Your task to perform on an android device: turn on bluetooth scan Image 0: 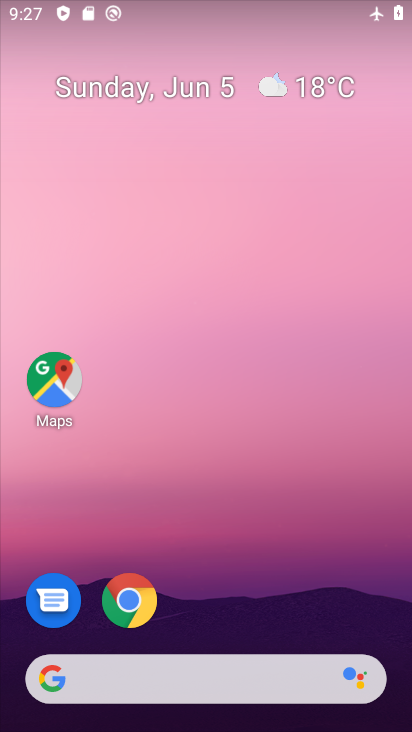
Step 0: drag from (301, 515) to (262, 71)
Your task to perform on an android device: turn on bluetooth scan Image 1: 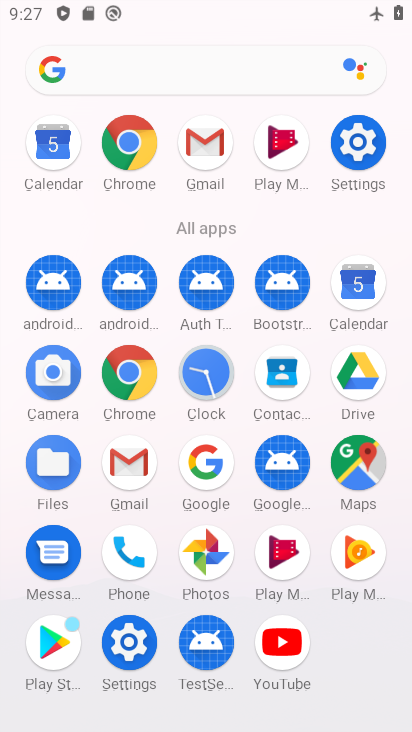
Step 1: click (363, 152)
Your task to perform on an android device: turn on bluetooth scan Image 2: 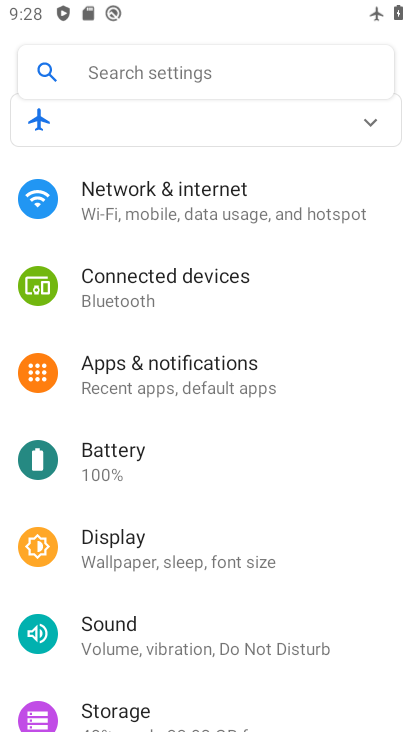
Step 2: drag from (224, 606) to (235, 208)
Your task to perform on an android device: turn on bluetooth scan Image 3: 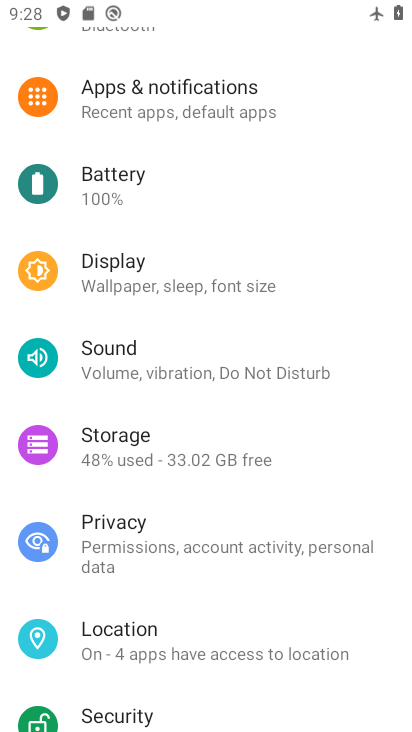
Step 3: click (147, 658)
Your task to perform on an android device: turn on bluetooth scan Image 4: 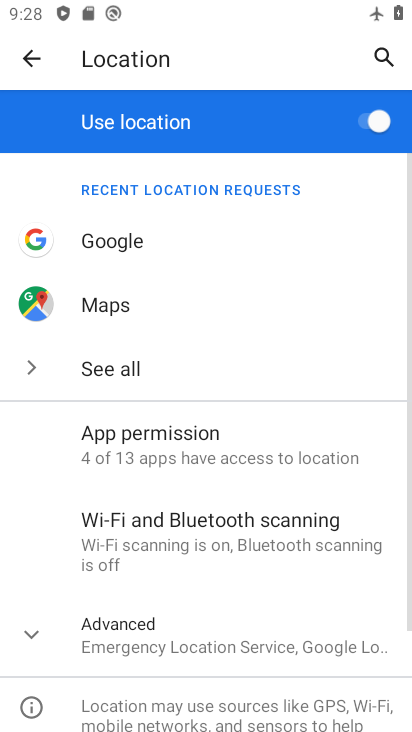
Step 4: click (193, 643)
Your task to perform on an android device: turn on bluetooth scan Image 5: 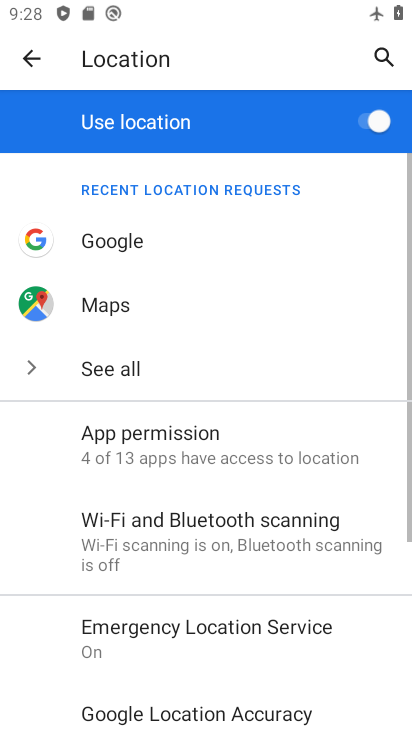
Step 5: drag from (248, 663) to (262, 124)
Your task to perform on an android device: turn on bluetooth scan Image 6: 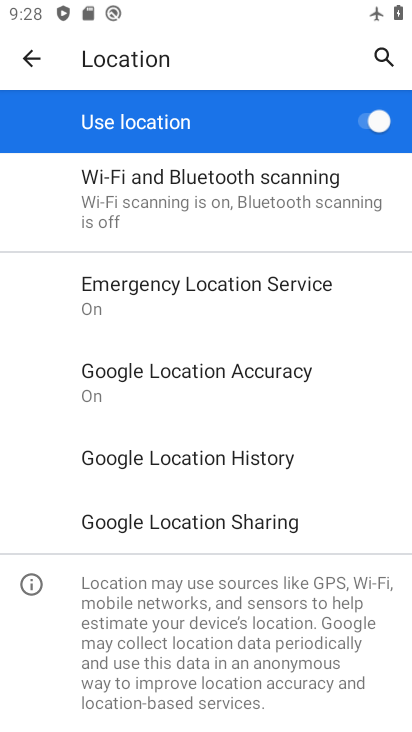
Step 6: drag from (193, 318) to (209, 556)
Your task to perform on an android device: turn on bluetooth scan Image 7: 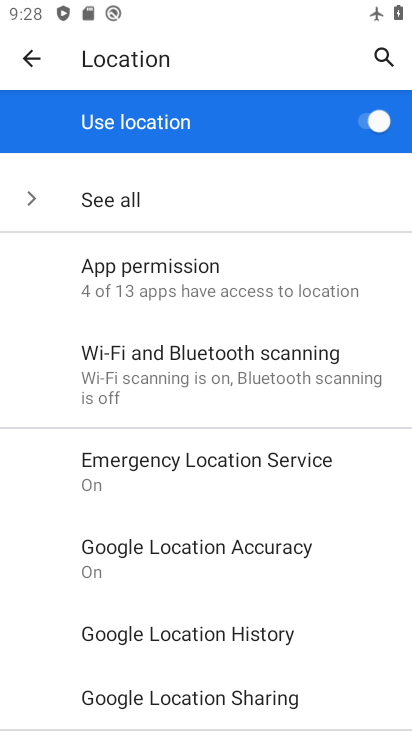
Step 7: click (219, 405)
Your task to perform on an android device: turn on bluetooth scan Image 8: 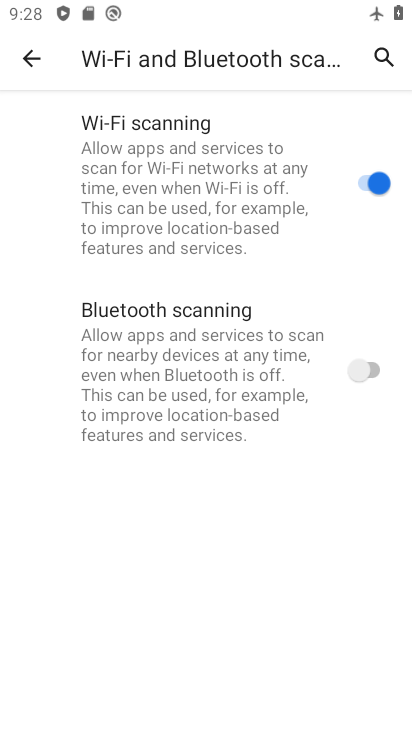
Step 8: click (332, 368)
Your task to perform on an android device: turn on bluetooth scan Image 9: 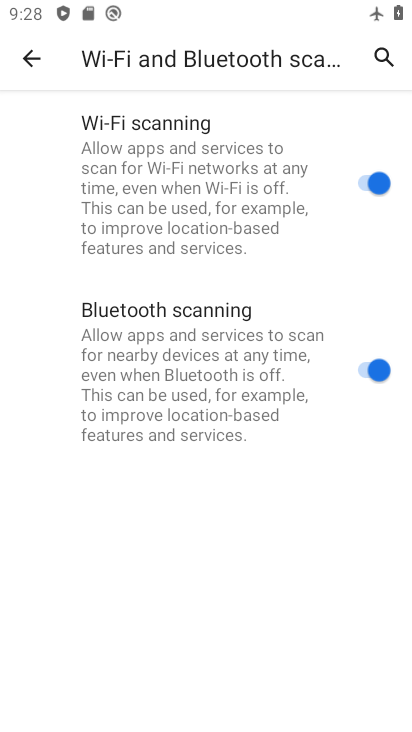
Step 9: task complete